Your task to perform on an android device: open device folders in google photos Image 0: 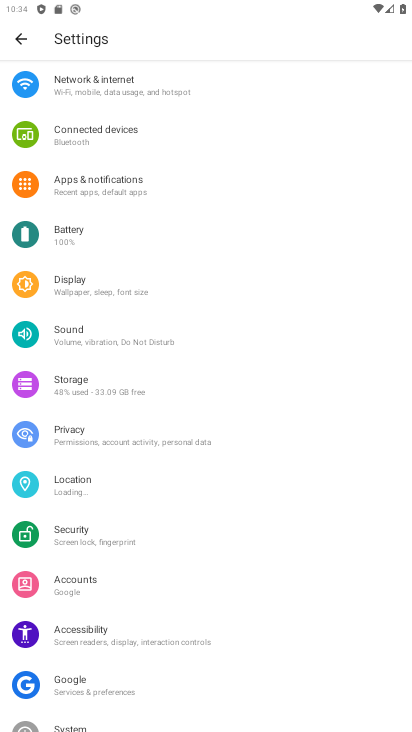
Step 0: press home button
Your task to perform on an android device: open device folders in google photos Image 1: 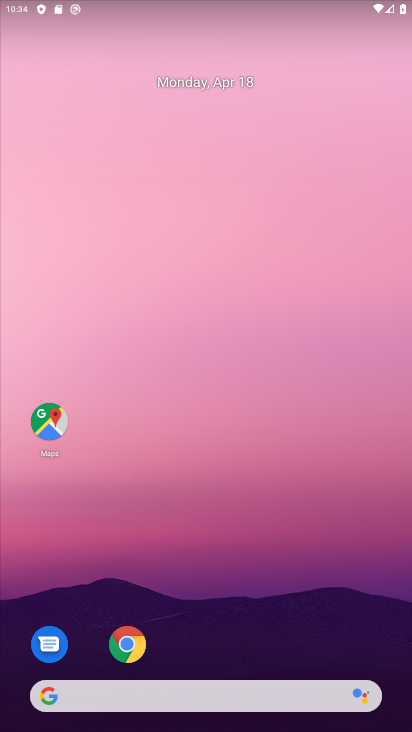
Step 1: drag from (194, 604) to (192, 187)
Your task to perform on an android device: open device folders in google photos Image 2: 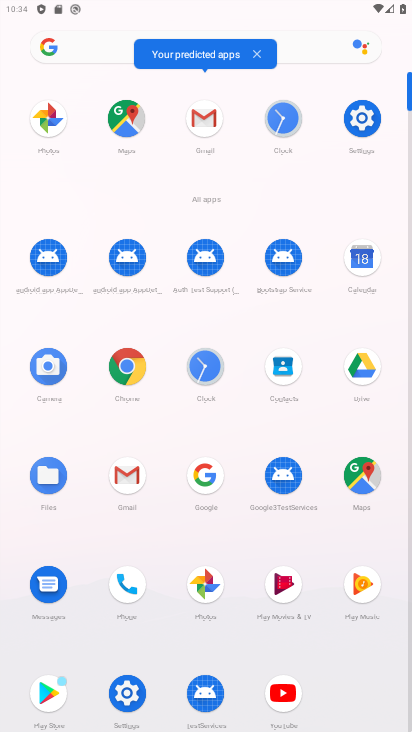
Step 2: click (196, 591)
Your task to perform on an android device: open device folders in google photos Image 3: 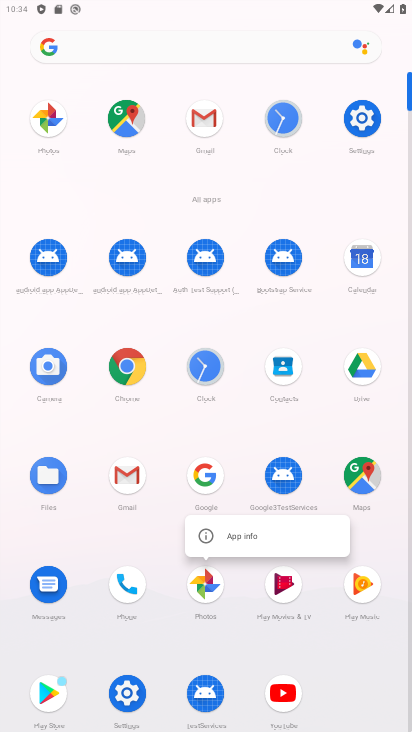
Step 3: click (205, 535)
Your task to perform on an android device: open device folders in google photos Image 4: 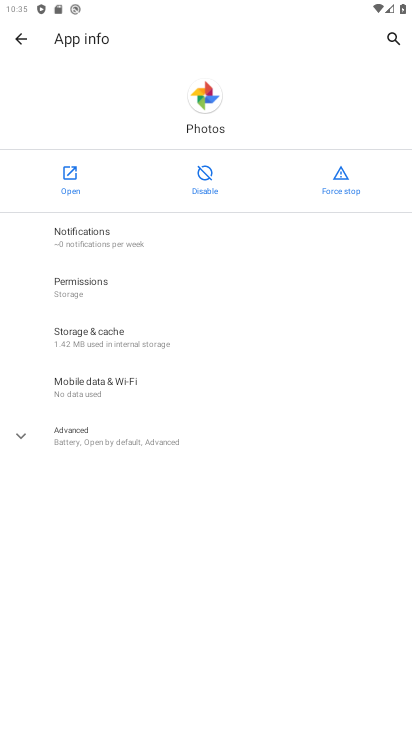
Step 4: click (80, 188)
Your task to perform on an android device: open device folders in google photos Image 5: 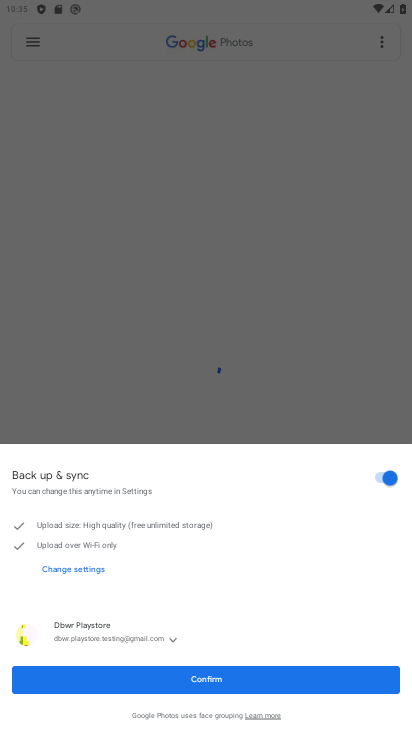
Step 5: click (274, 680)
Your task to perform on an android device: open device folders in google photos Image 6: 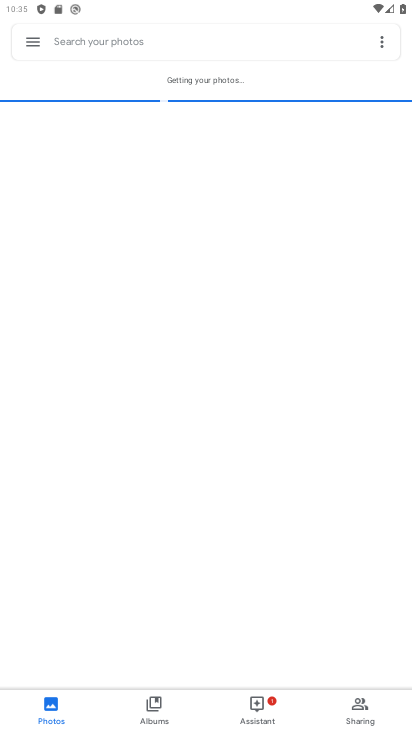
Step 6: click (160, 709)
Your task to perform on an android device: open device folders in google photos Image 7: 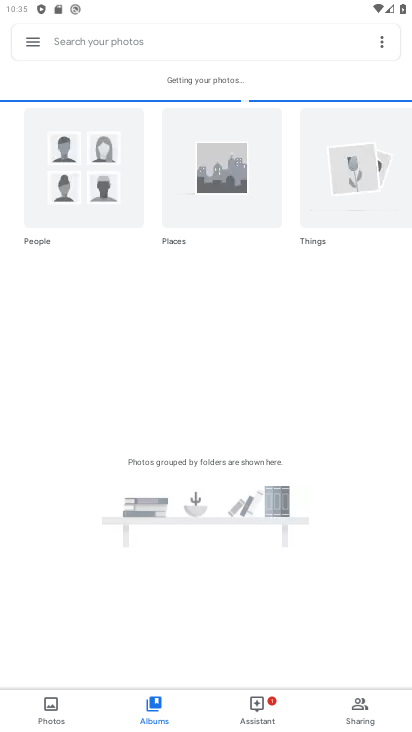
Step 7: click (387, 48)
Your task to perform on an android device: open device folders in google photos Image 8: 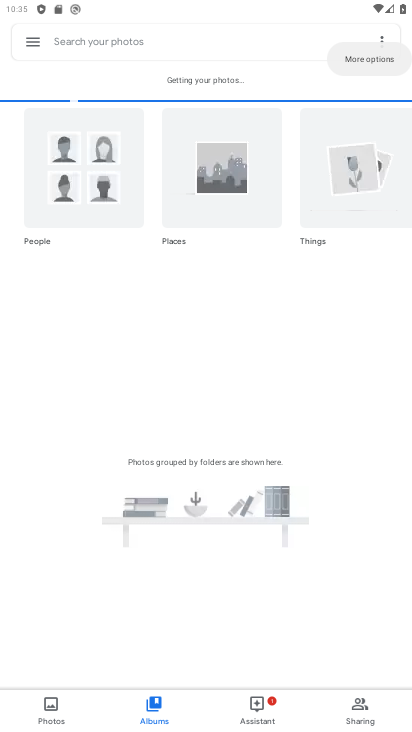
Step 8: click (380, 43)
Your task to perform on an android device: open device folders in google photos Image 9: 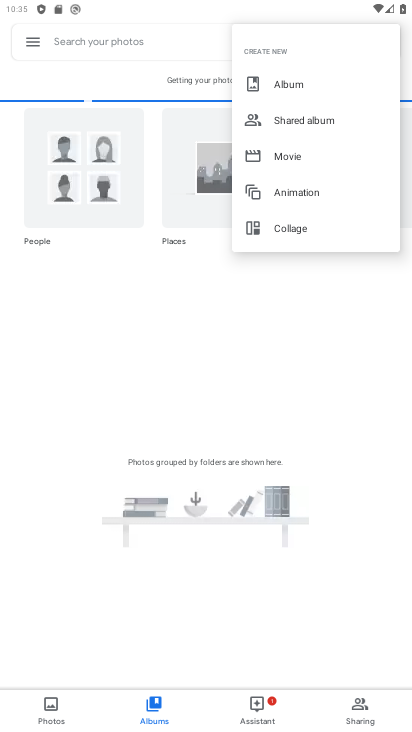
Step 9: click (257, 272)
Your task to perform on an android device: open device folders in google photos Image 10: 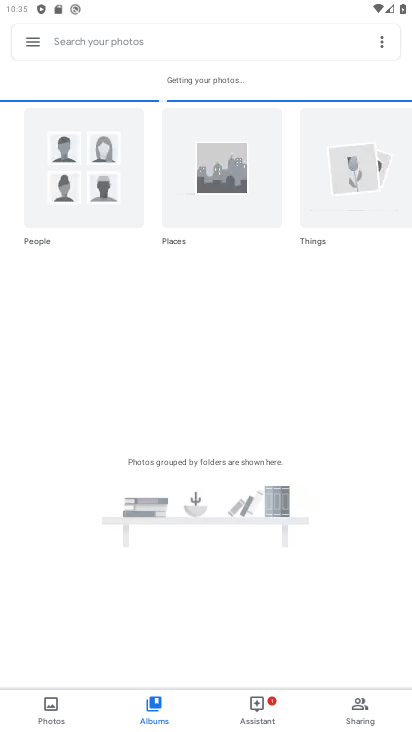
Step 10: click (38, 43)
Your task to perform on an android device: open device folders in google photos Image 11: 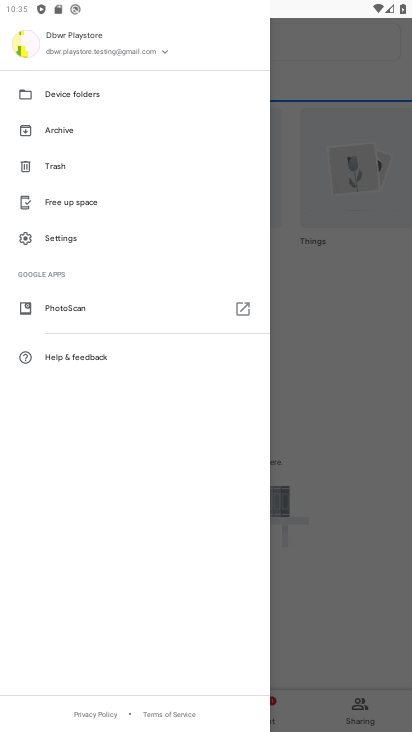
Step 11: click (80, 98)
Your task to perform on an android device: open device folders in google photos Image 12: 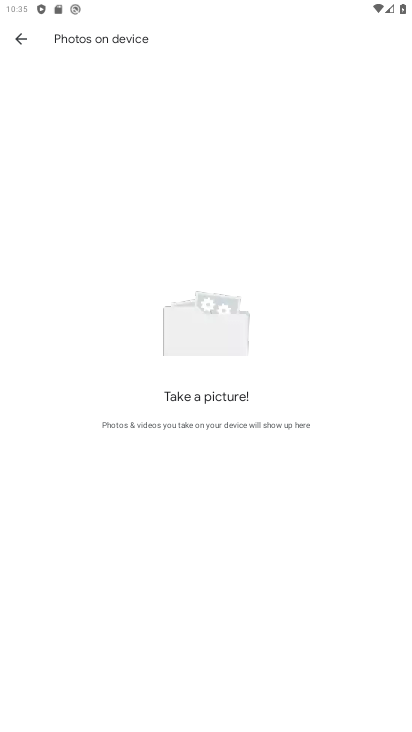
Step 12: task complete